Your task to perform on an android device: Show the shopping cart on amazon.com. Image 0: 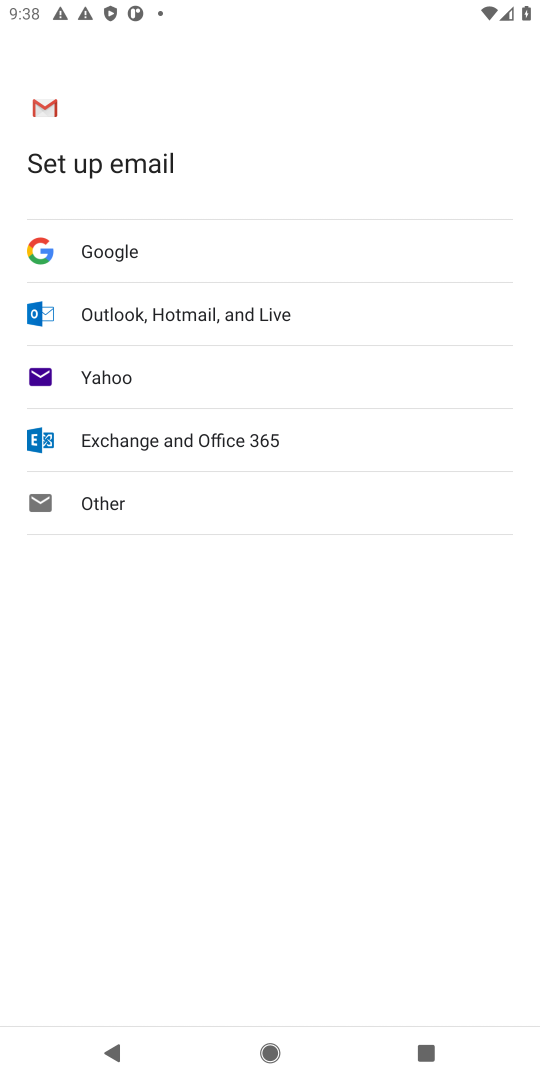
Step 0: press home button
Your task to perform on an android device: Show the shopping cart on amazon.com. Image 1: 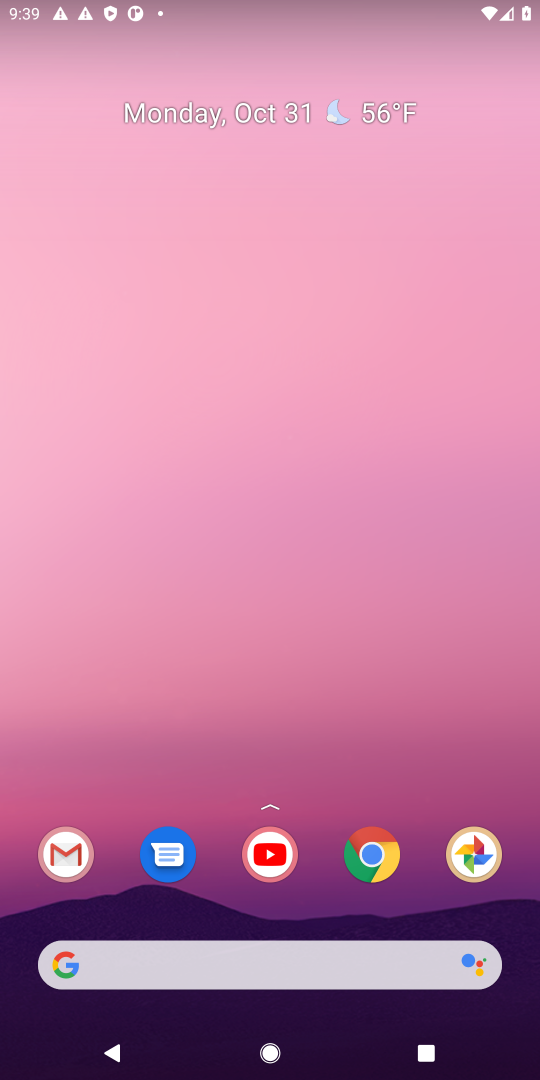
Step 1: click (330, 962)
Your task to perform on an android device: Show the shopping cart on amazon.com. Image 2: 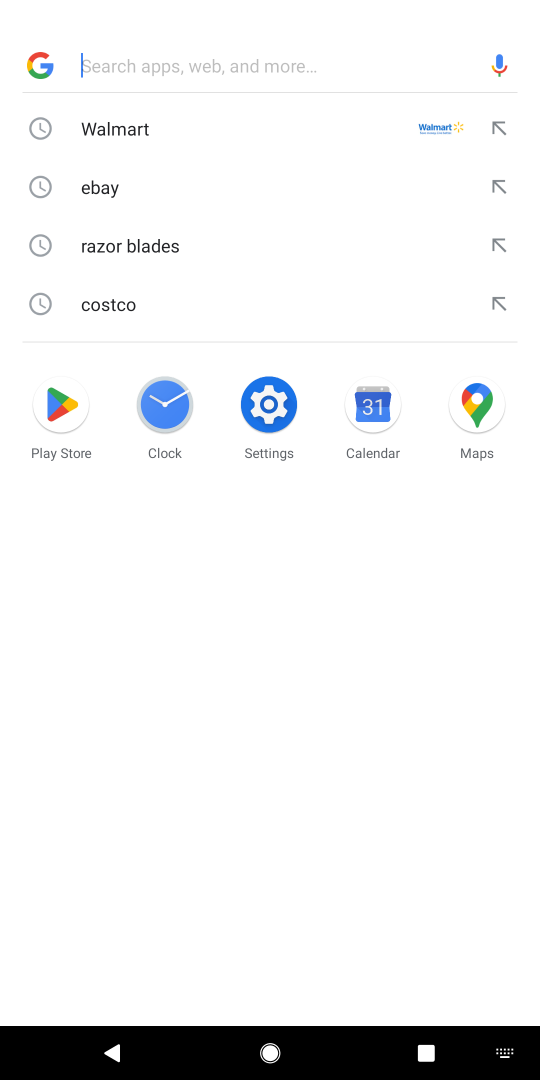
Step 2: type "amazon"
Your task to perform on an android device: Show the shopping cart on amazon.com. Image 3: 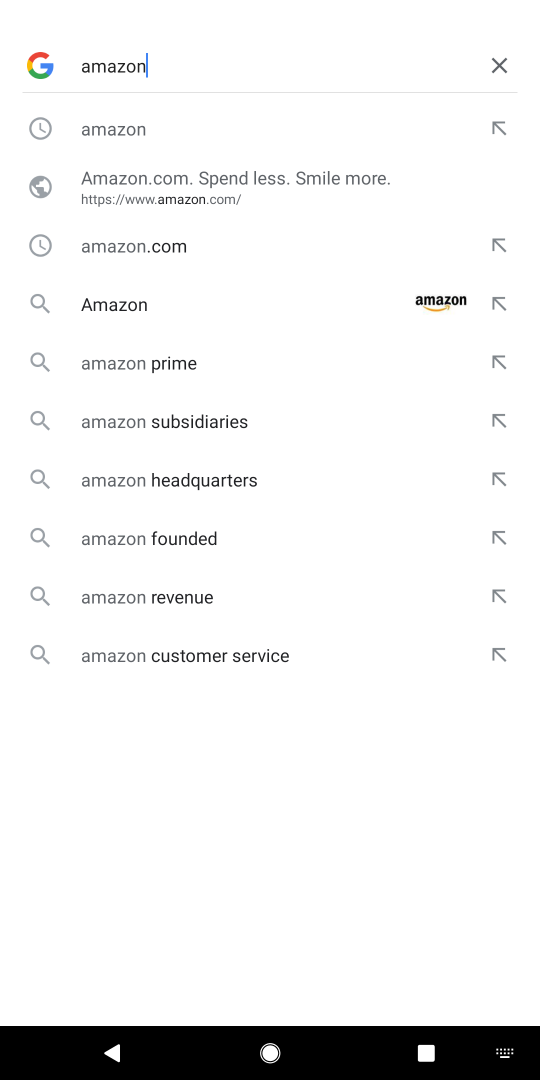
Step 3: click (223, 135)
Your task to perform on an android device: Show the shopping cart on amazon.com. Image 4: 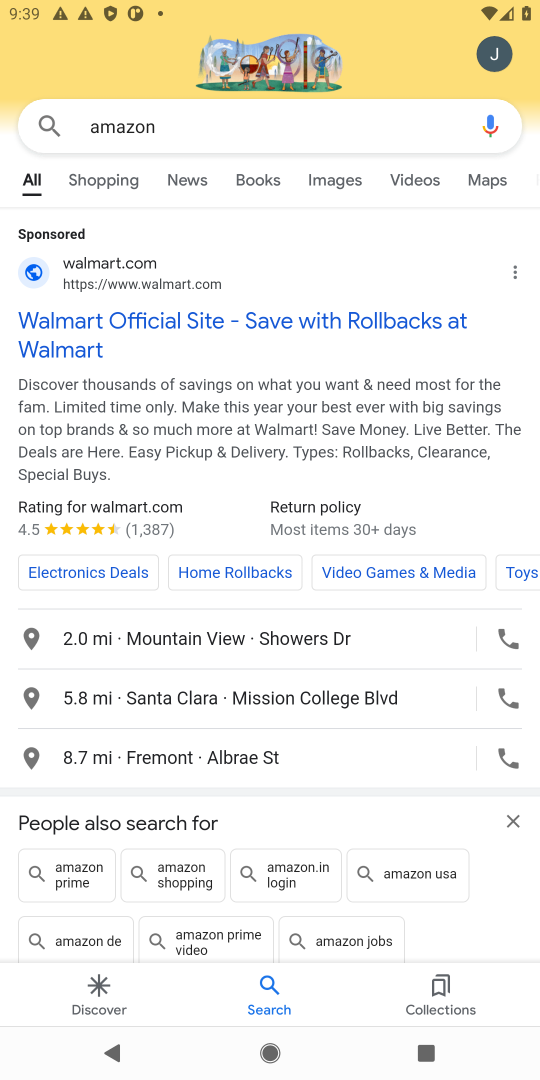
Step 4: click (137, 348)
Your task to perform on an android device: Show the shopping cart on amazon.com. Image 5: 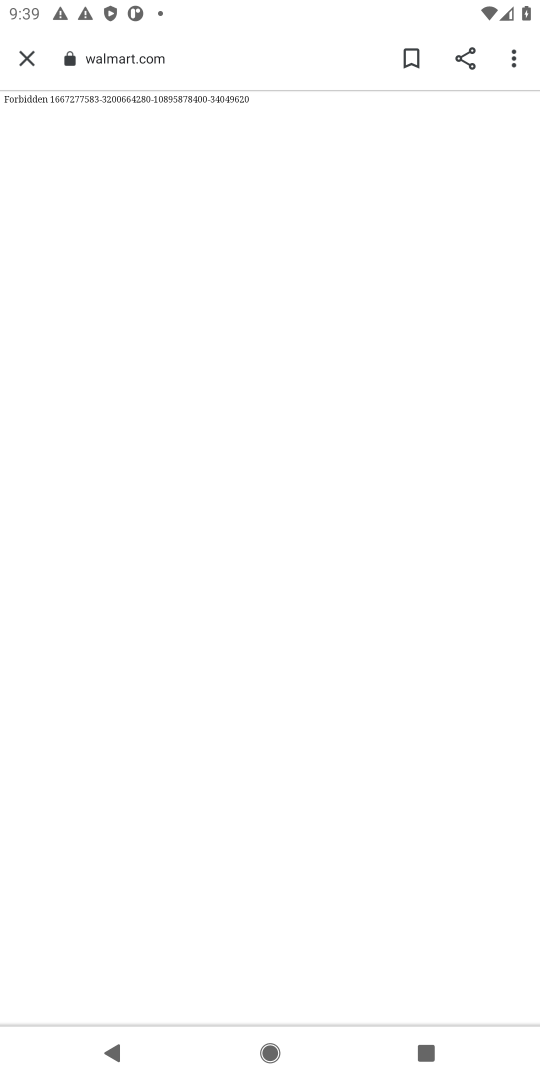
Step 5: click (207, 57)
Your task to perform on an android device: Show the shopping cart on amazon.com. Image 6: 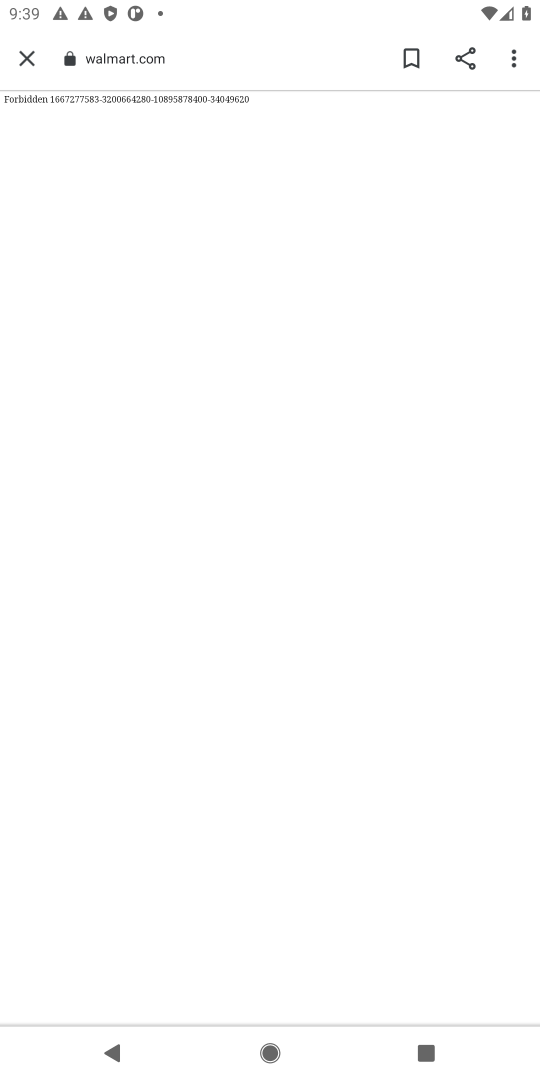
Step 6: task complete